Your task to perform on an android device: find snoozed emails in the gmail app Image 0: 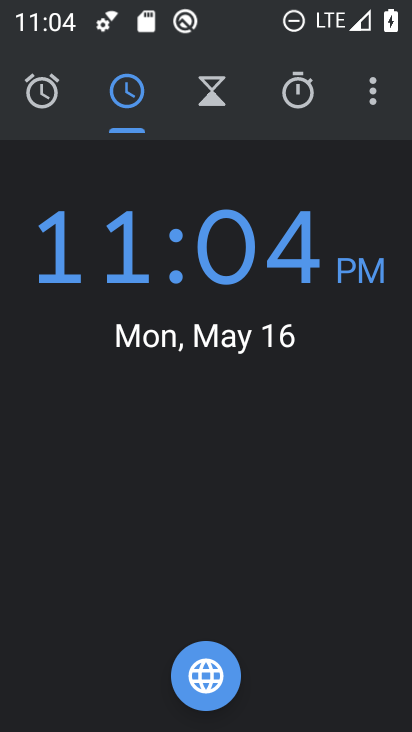
Step 0: press home button
Your task to perform on an android device: find snoozed emails in the gmail app Image 1: 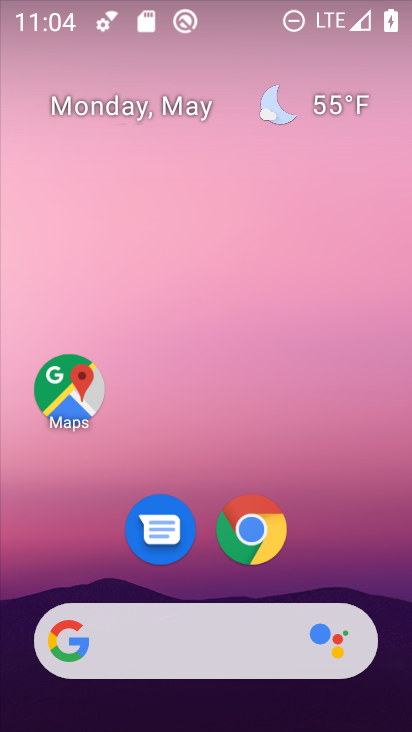
Step 1: drag from (181, 613) to (188, 48)
Your task to perform on an android device: find snoozed emails in the gmail app Image 2: 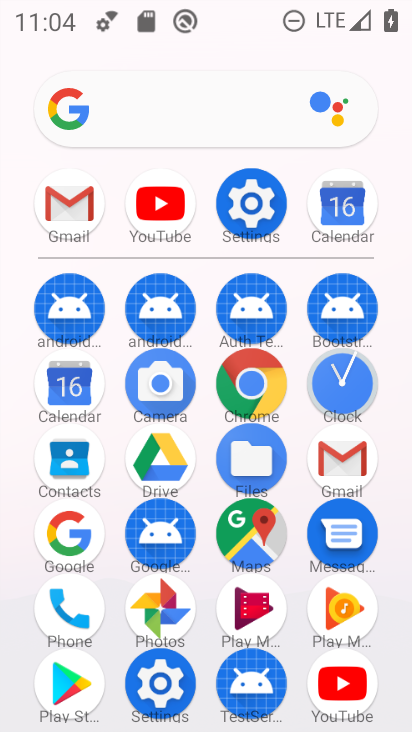
Step 2: click (347, 454)
Your task to perform on an android device: find snoozed emails in the gmail app Image 3: 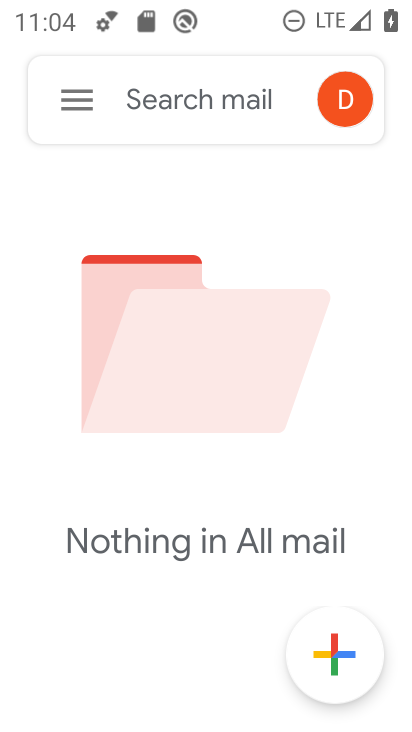
Step 3: click (77, 121)
Your task to perform on an android device: find snoozed emails in the gmail app Image 4: 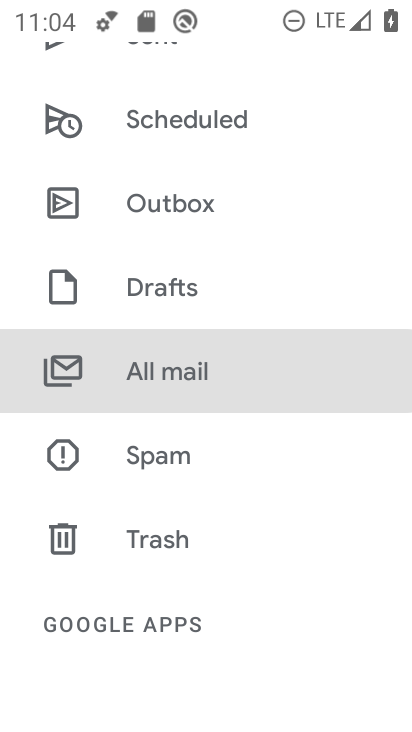
Step 4: drag from (144, 202) to (143, 661)
Your task to perform on an android device: find snoozed emails in the gmail app Image 5: 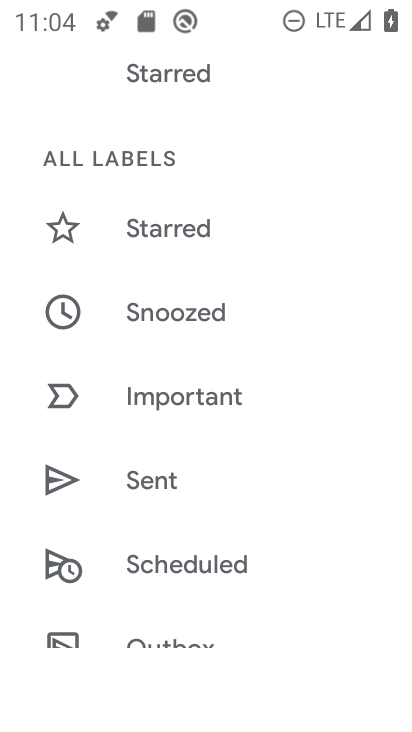
Step 5: click (148, 322)
Your task to perform on an android device: find snoozed emails in the gmail app Image 6: 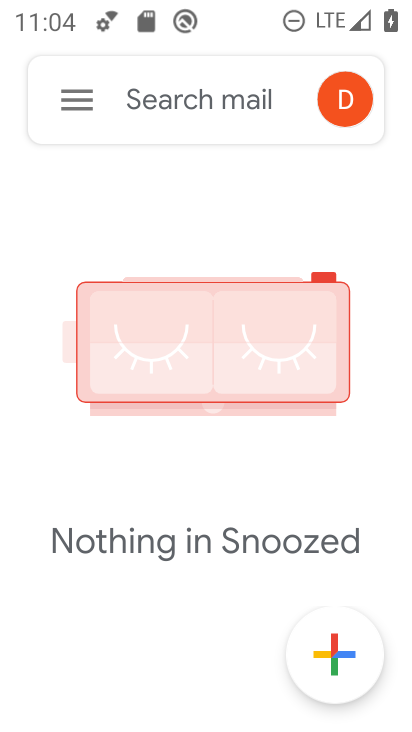
Step 6: task complete